Your task to perform on an android device: turn on showing notifications on the lock screen Image 0: 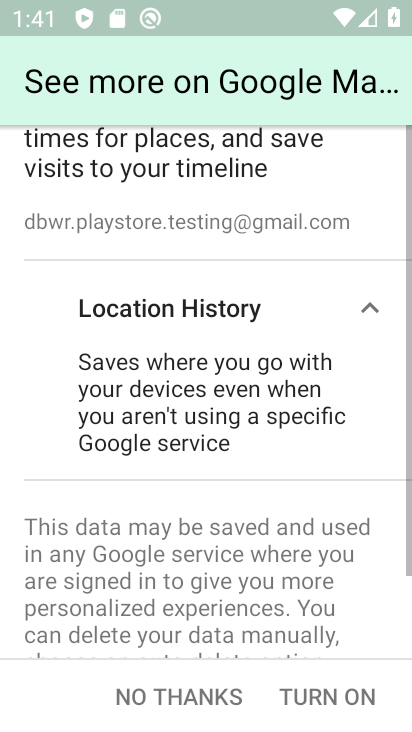
Step 0: press home button
Your task to perform on an android device: turn on showing notifications on the lock screen Image 1: 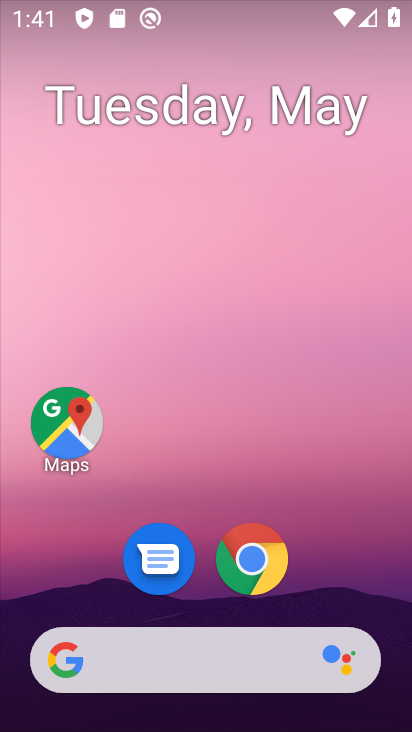
Step 1: drag from (389, 638) to (312, 110)
Your task to perform on an android device: turn on showing notifications on the lock screen Image 2: 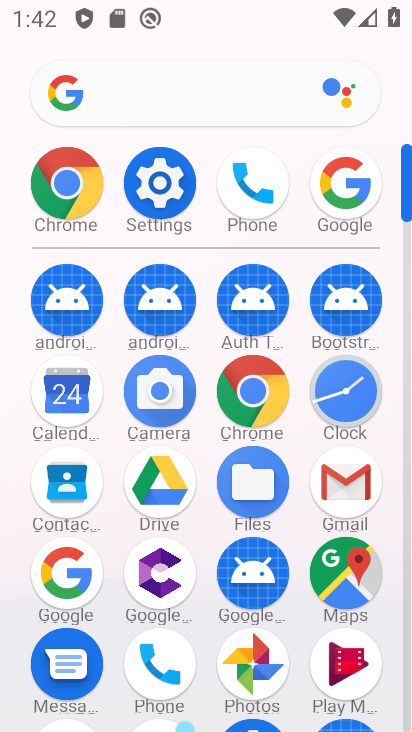
Step 2: click (148, 169)
Your task to perform on an android device: turn on showing notifications on the lock screen Image 3: 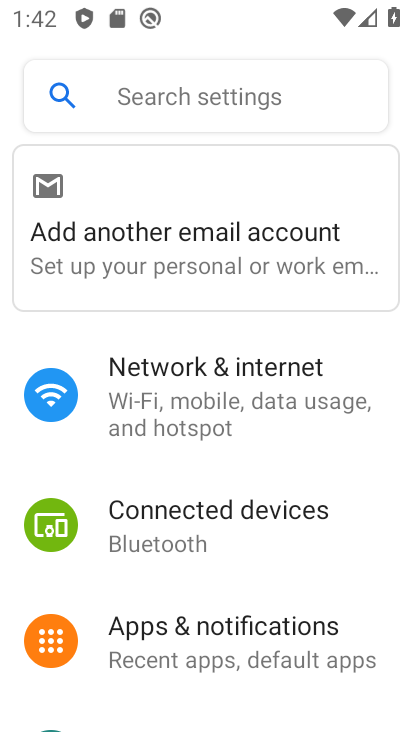
Step 3: click (226, 634)
Your task to perform on an android device: turn on showing notifications on the lock screen Image 4: 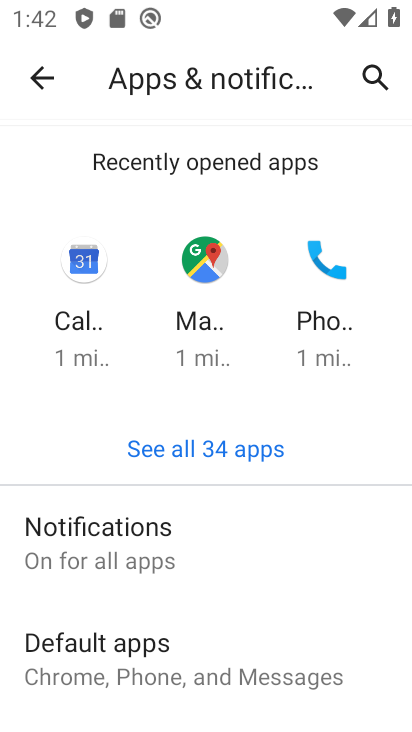
Step 4: click (223, 538)
Your task to perform on an android device: turn on showing notifications on the lock screen Image 5: 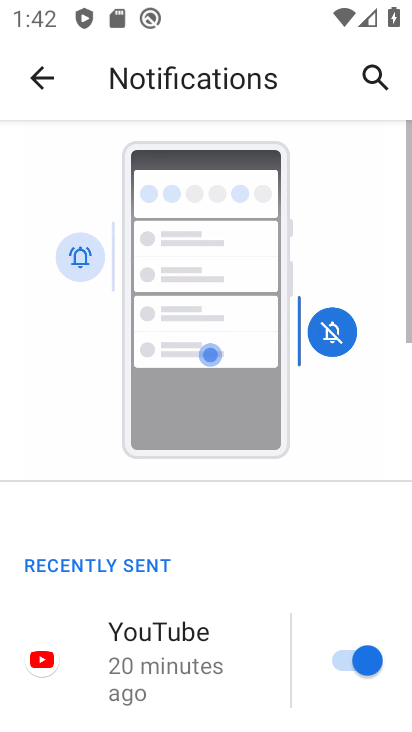
Step 5: drag from (200, 656) to (260, 22)
Your task to perform on an android device: turn on showing notifications on the lock screen Image 6: 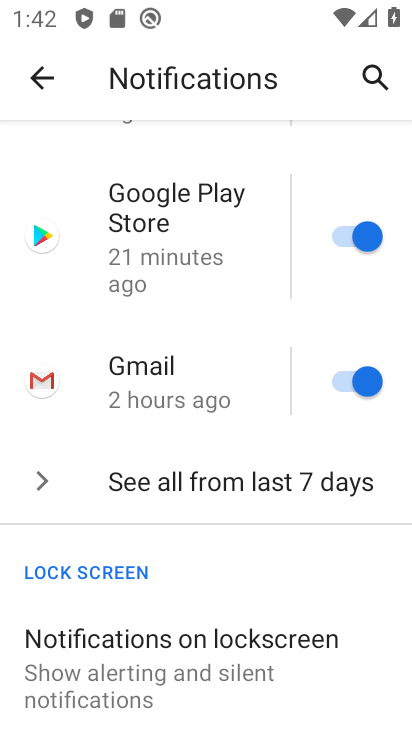
Step 6: click (259, 675)
Your task to perform on an android device: turn on showing notifications on the lock screen Image 7: 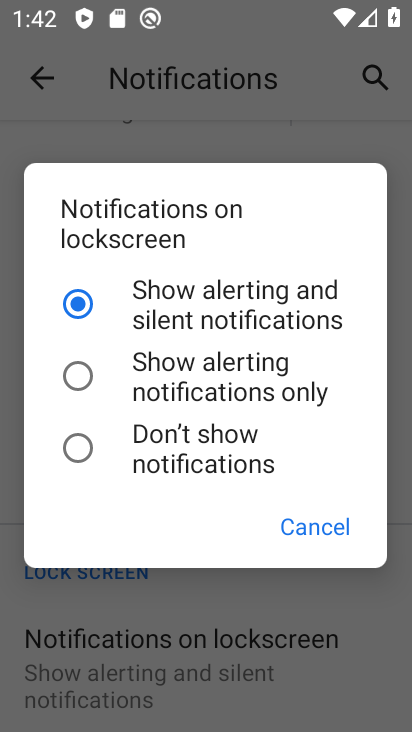
Step 7: task complete